Your task to perform on an android device: Toggle the flashlight Image 0: 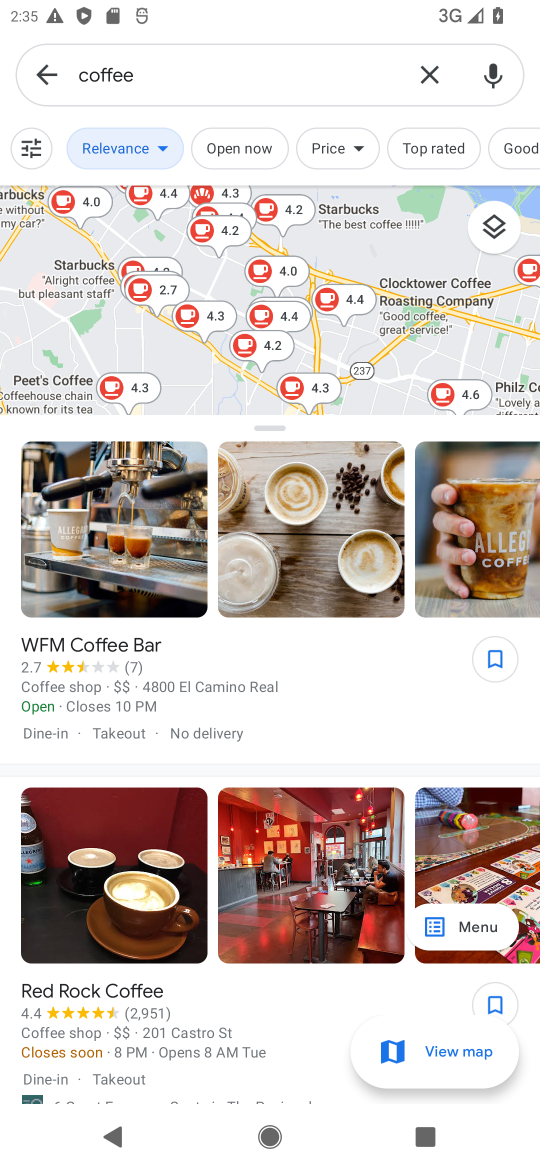
Step 0: task impossible